Your task to perform on an android device: Search for the best rated desk chair on Article.com Image 0: 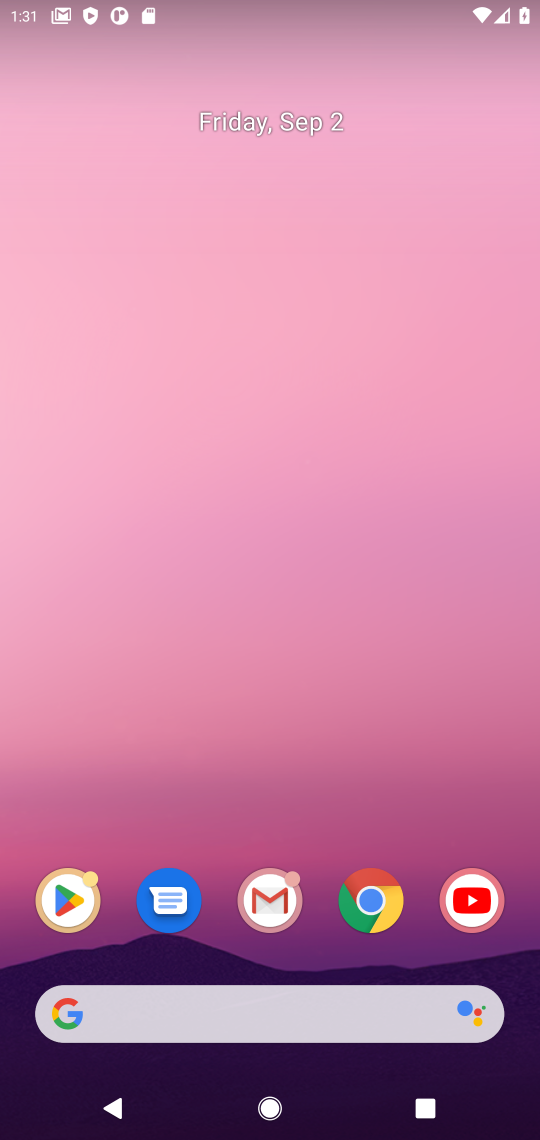
Step 0: click (381, 892)
Your task to perform on an android device: Search for the best rated desk chair on Article.com Image 1: 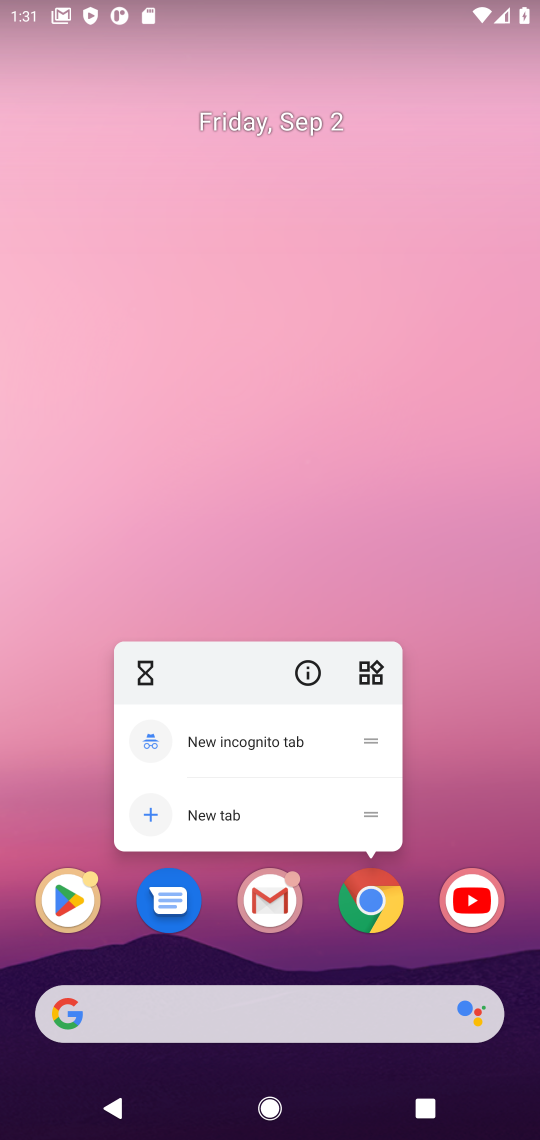
Step 1: click (367, 893)
Your task to perform on an android device: Search for the best rated desk chair on Article.com Image 2: 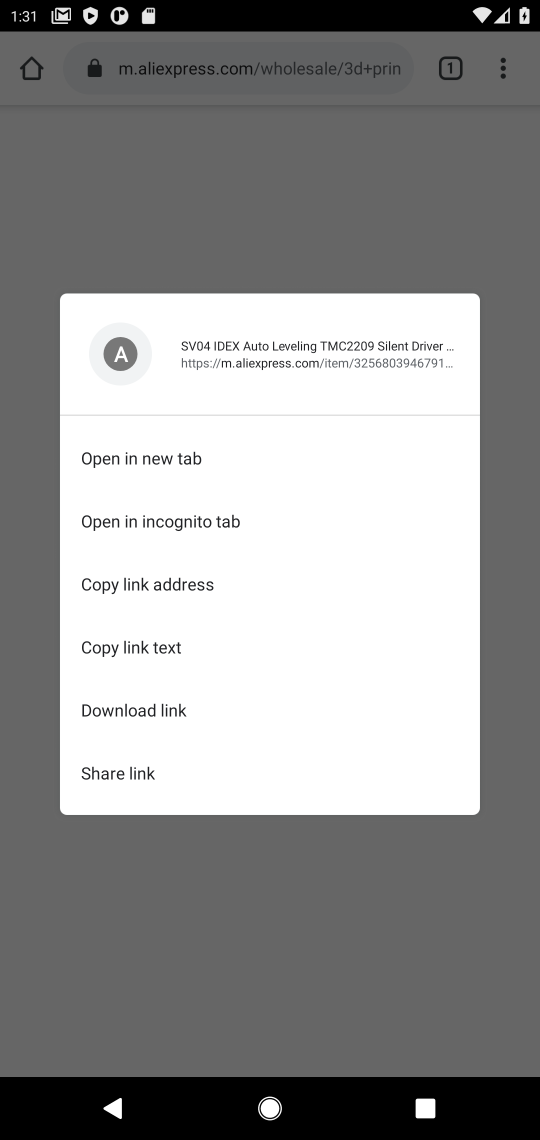
Step 2: click (237, 75)
Your task to perform on an android device: Search for the best rated desk chair on Article.com Image 3: 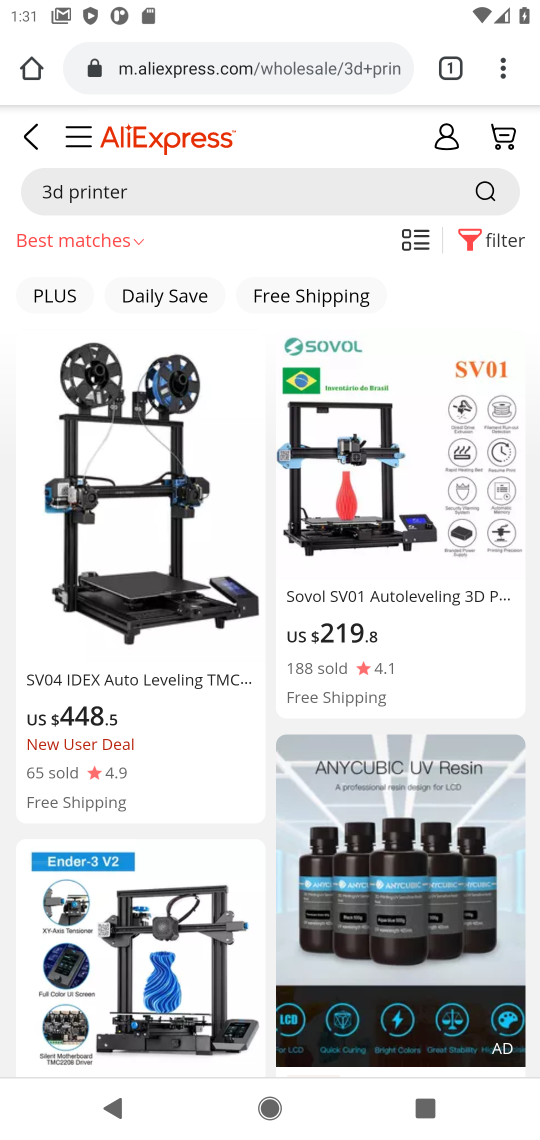
Step 3: click (237, 75)
Your task to perform on an android device: Search for the best rated desk chair on Article.com Image 4: 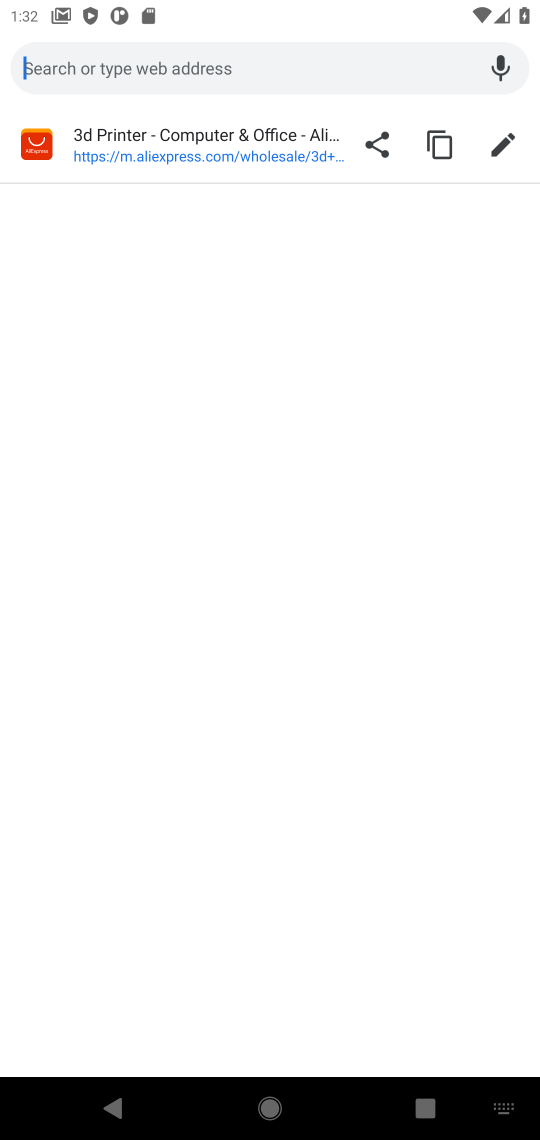
Step 4: type "article.com"
Your task to perform on an android device: Search for the best rated desk chair on Article.com Image 5: 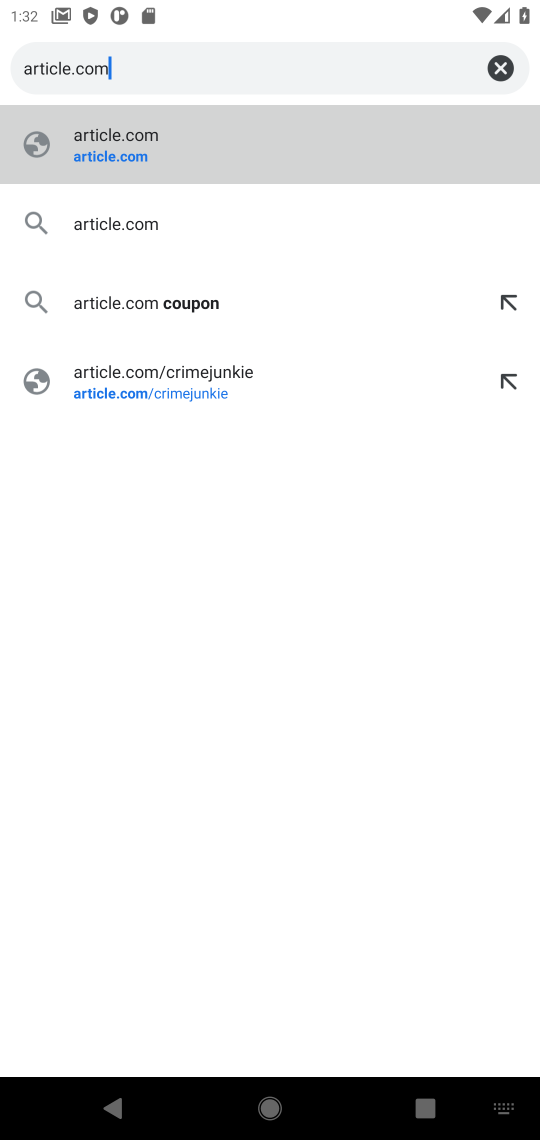
Step 5: click (197, 157)
Your task to perform on an android device: Search for the best rated desk chair on Article.com Image 6: 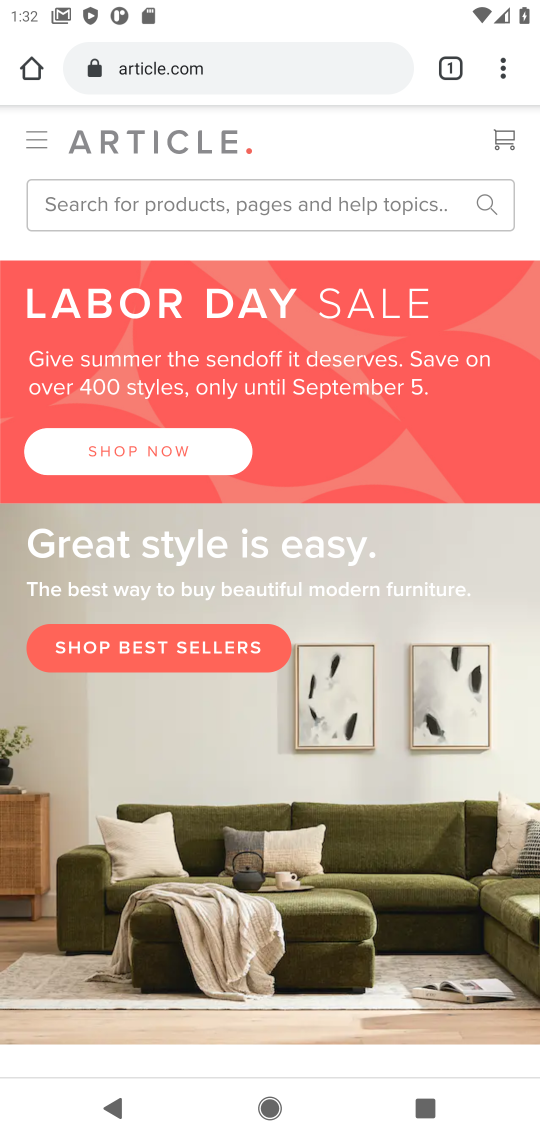
Step 6: click (179, 208)
Your task to perform on an android device: Search for the best rated desk chair on Article.com Image 7: 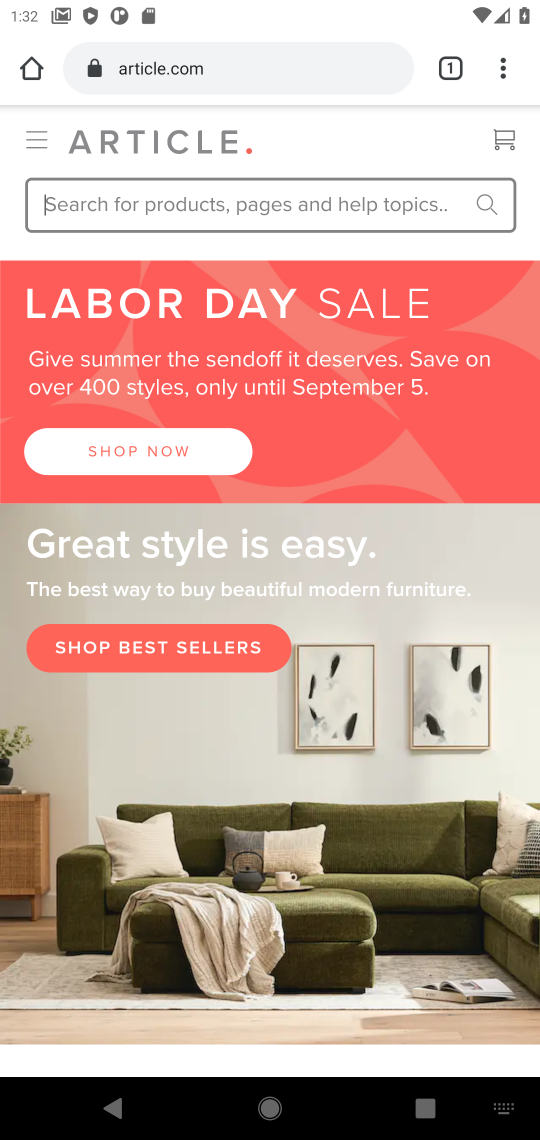
Step 7: type "desk chair"
Your task to perform on an android device: Search for the best rated desk chair on Article.com Image 8: 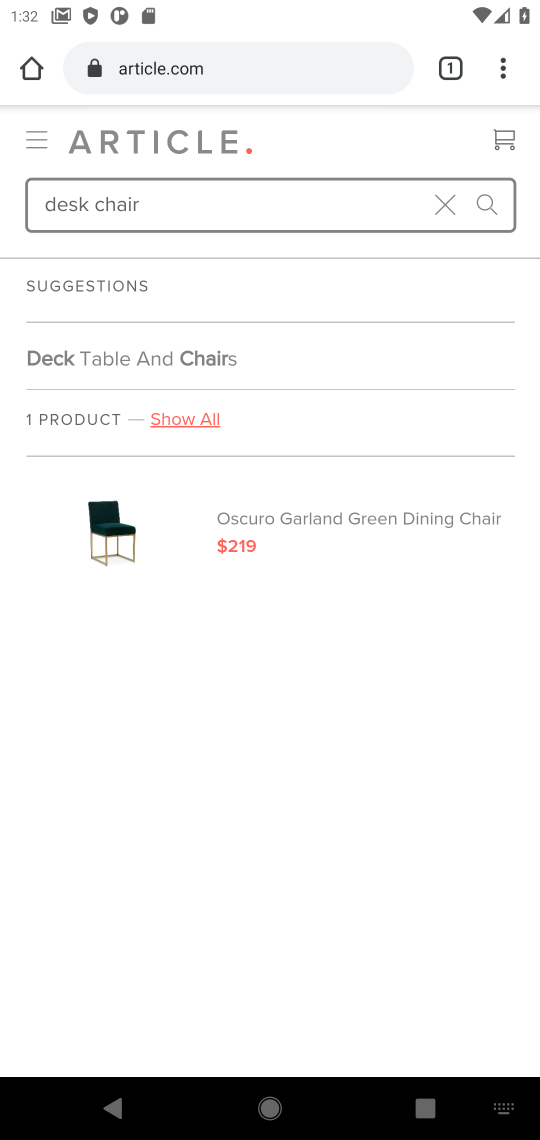
Step 8: press enter
Your task to perform on an android device: Search for the best rated desk chair on Article.com Image 9: 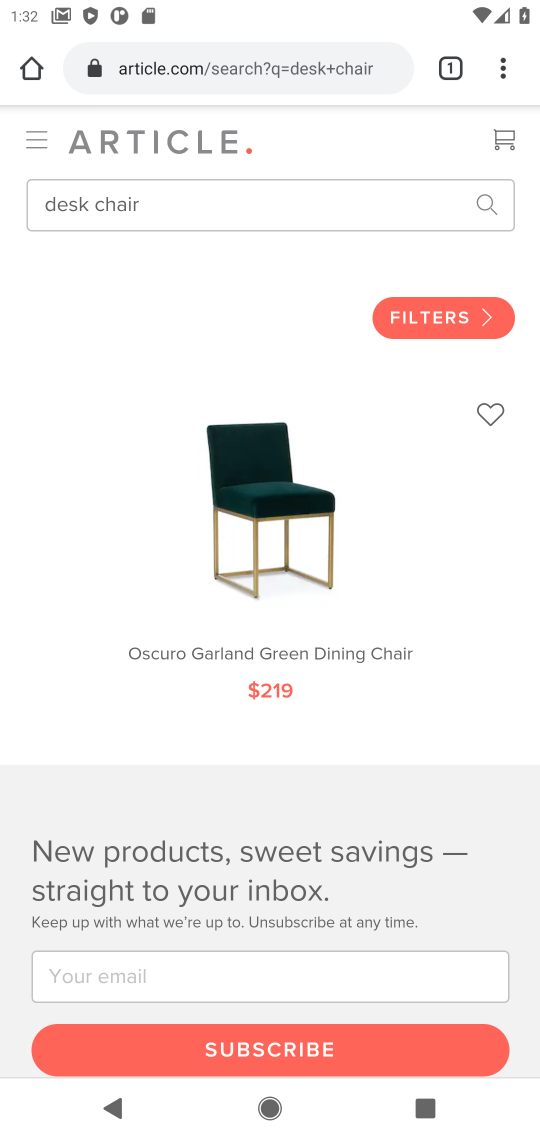
Step 9: click (452, 325)
Your task to perform on an android device: Search for the best rated desk chair on Article.com Image 10: 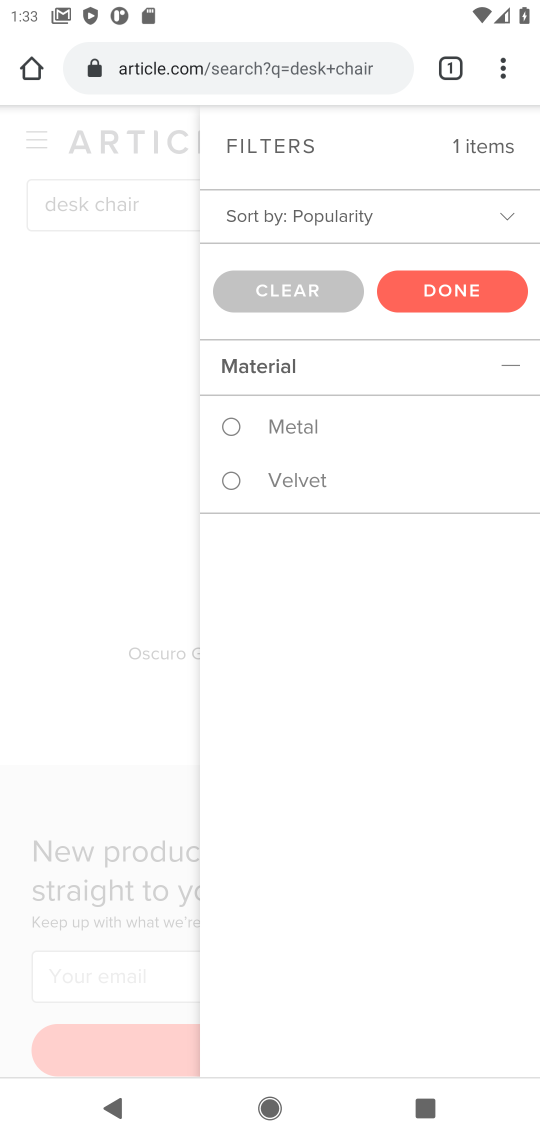
Step 10: click (163, 316)
Your task to perform on an android device: Search for the best rated desk chair on Article.com Image 11: 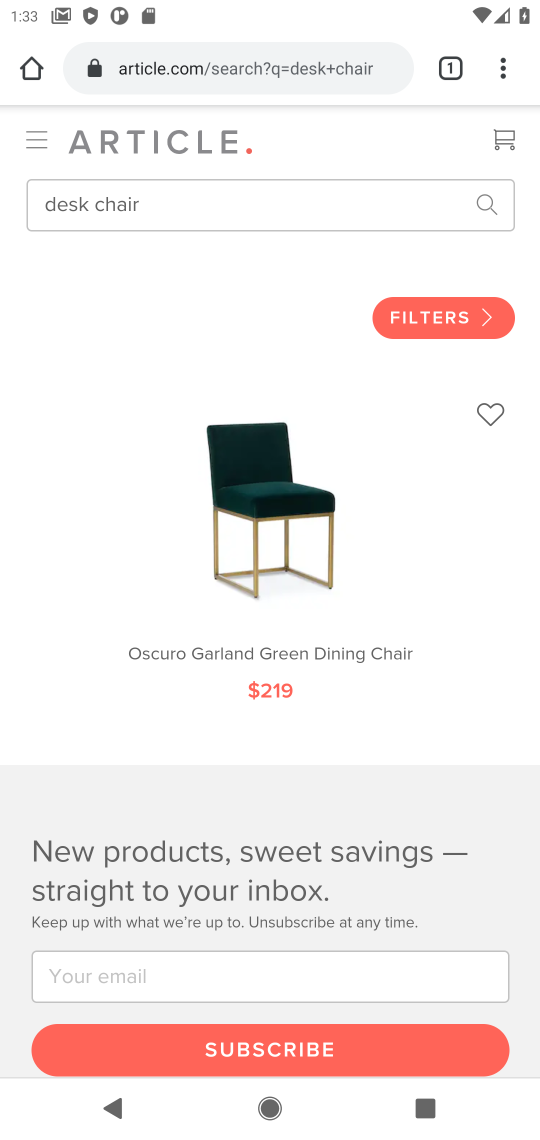
Step 11: task complete